Your task to perform on an android device: delete location history Image 0: 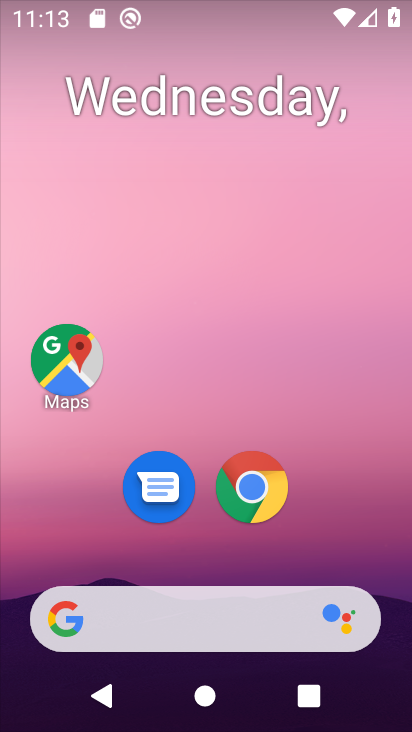
Step 0: drag from (329, 442) to (250, 32)
Your task to perform on an android device: delete location history Image 1: 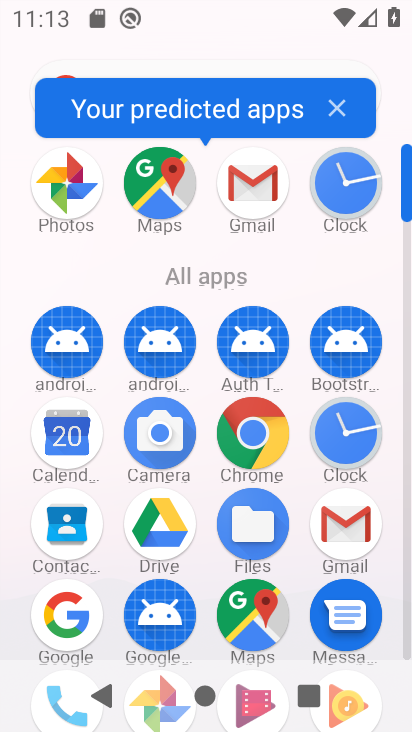
Step 1: drag from (22, 524) to (33, 278)
Your task to perform on an android device: delete location history Image 2: 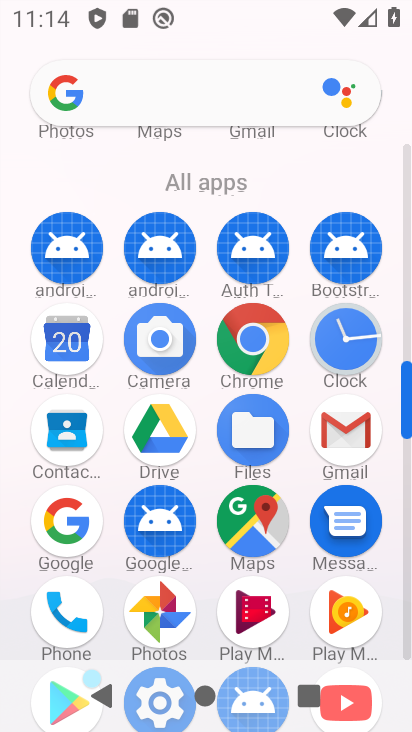
Step 2: drag from (14, 481) to (22, 219)
Your task to perform on an android device: delete location history Image 3: 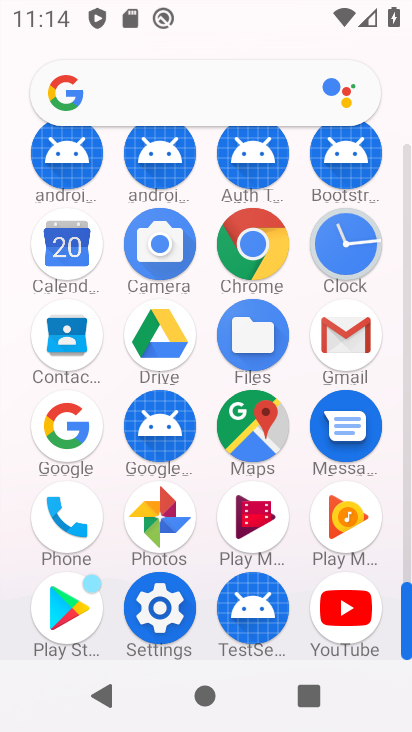
Step 3: click (160, 607)
Your task to perform on an android device: delete location history Image 4: 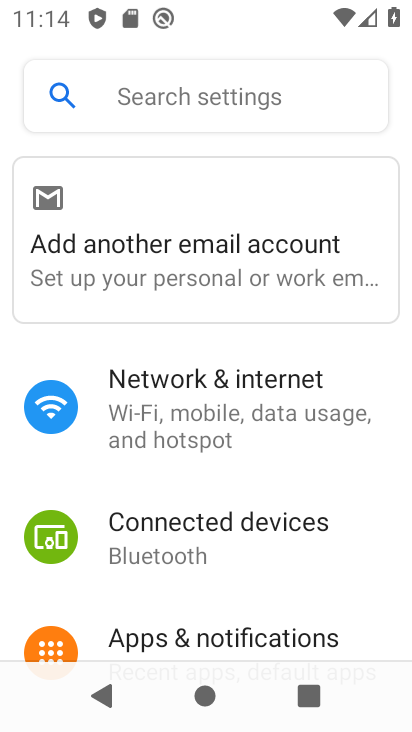
Step 4: drag from (283, 569) to (312, 170)
Your task to perform on an android device: delete location history Image 5: 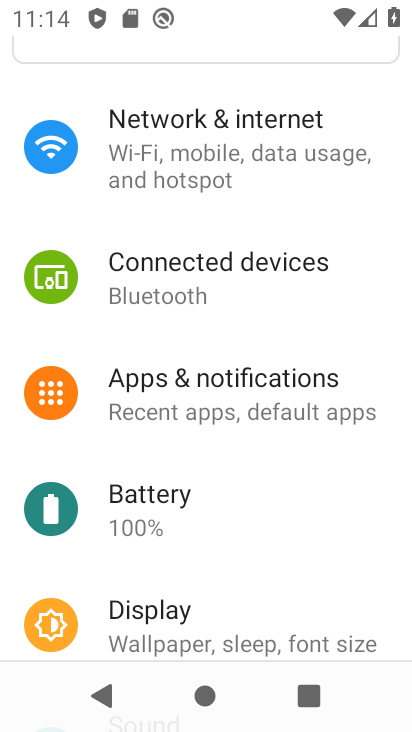
Step 5: drag from (236, 486) to (261, 151)
Your task to perform on an android device: delete location history Image 6: 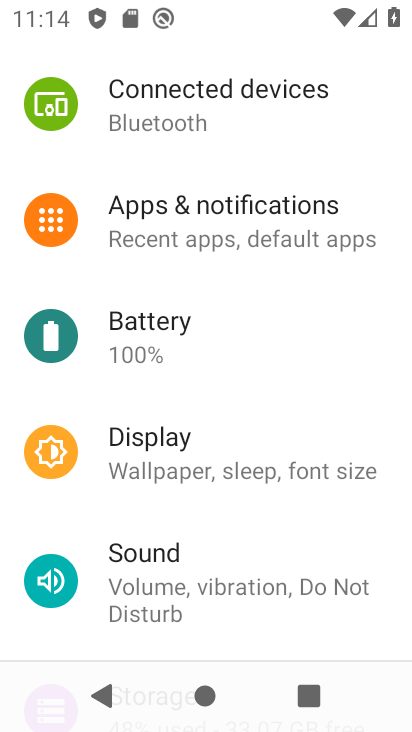
Step 6: drag from (215, 489) to (240, 167)
Your task to perform on an android device: delete location history Image 7: 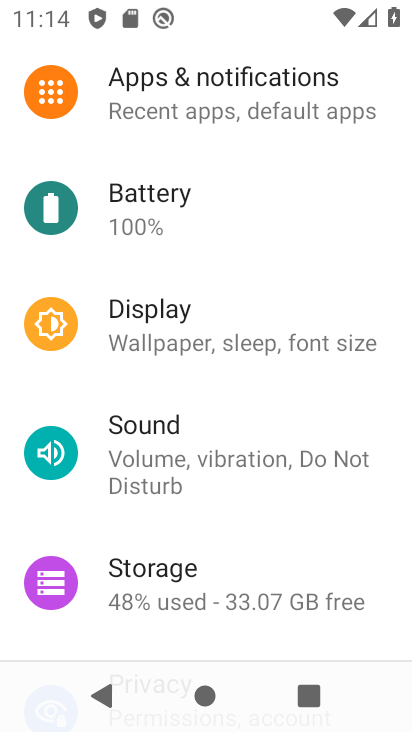
Step 7: drag from (140, 423) to (236, 132)
Your task to perform on an android device: delete location history Image 8: 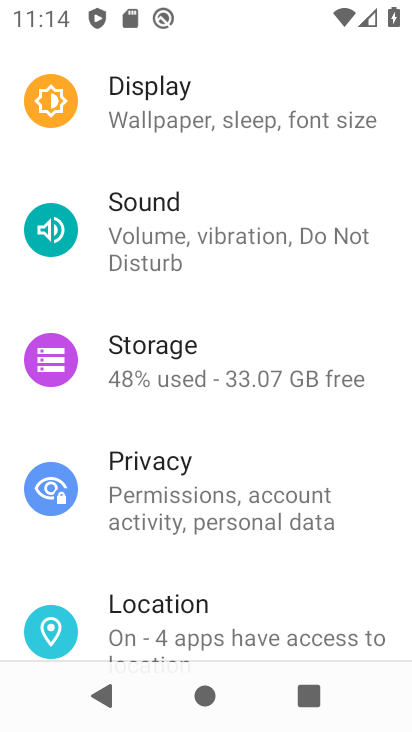
Step 8: click (192, 591)
Your task to perform on an android device: delete location history Image 9: 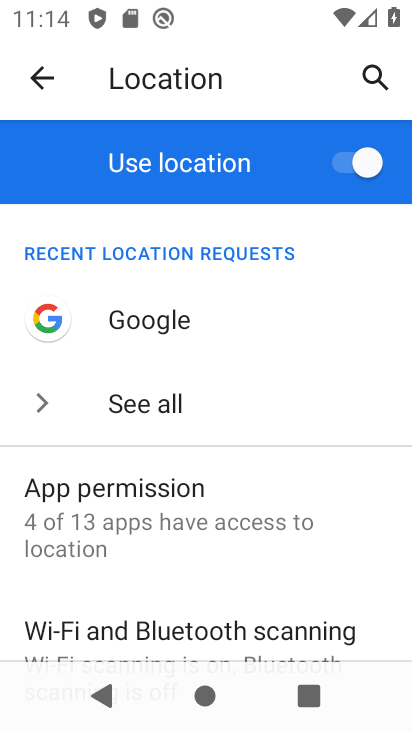
Step 9: drag from (266, 384) to (292, 140)
Your task to perform on an android device: delete location history Image 10: 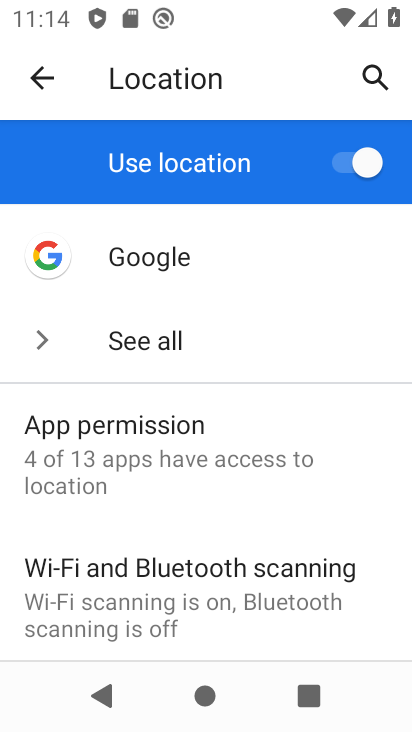
Step 10: drag from (189, 449) to (264, 192)
Your task to perform on an android device: delete location history Image 11: 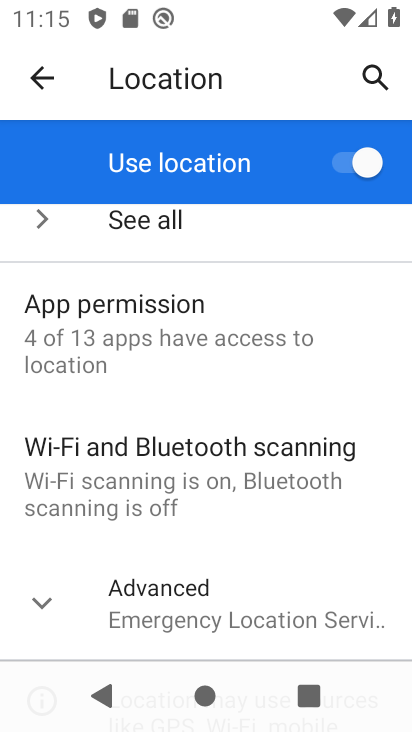
Step 11: click (60, 611)
Your task to perform on an android device: delete location history Image 12: 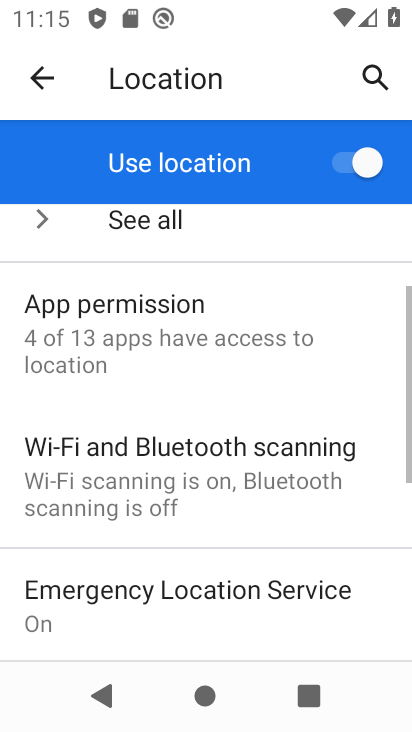
Step 12: drag from (258, 590) to (295, 241)
Your task to perform on an android device: delete location history Image 13: 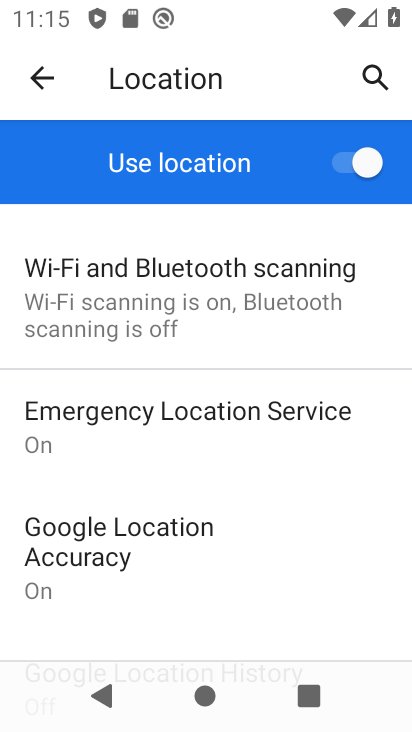
Step 13: drag from (206, 481) to (235, 179)
Your task to perform on an android device: delete location history Image 14: 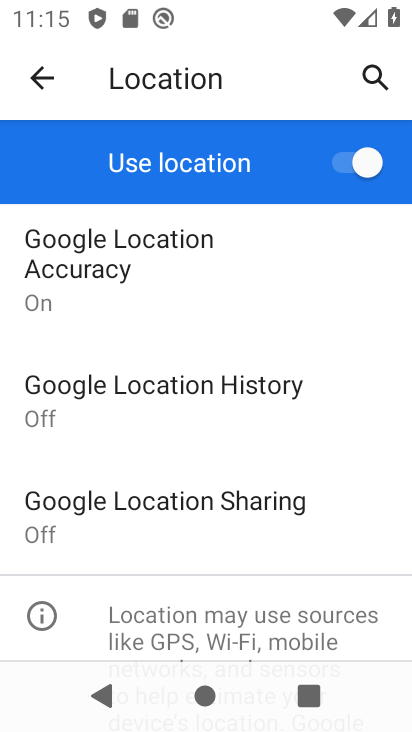
Step 14: click (122, 398)
Your task to perform on an android device: delete location history Image 15: 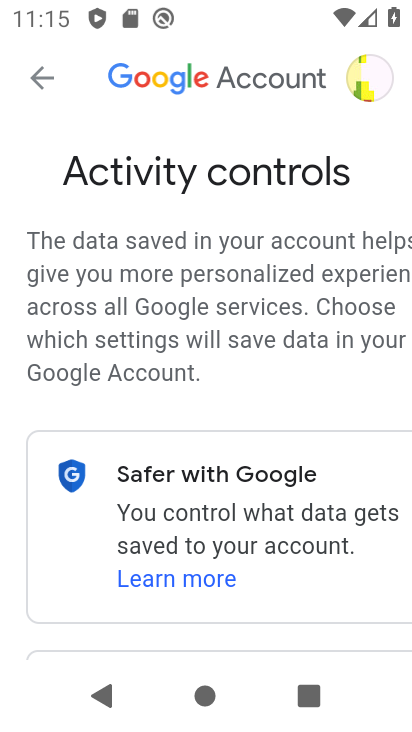
Step 15: drag from (260, 488) to (213, 144)
Your task to perform on an android device: delete location history Image 16: 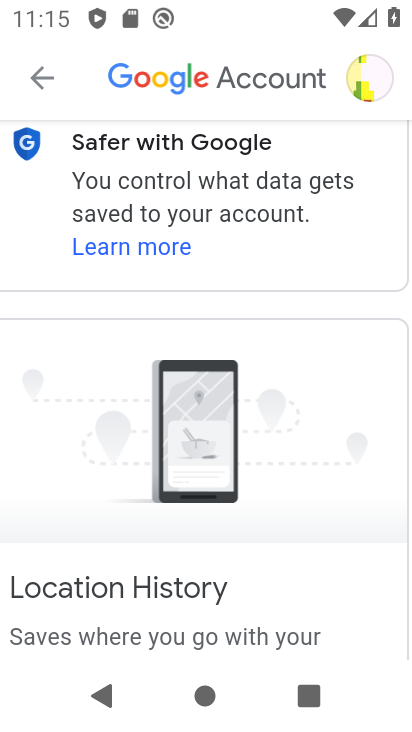
Step 16: drag from (213, 540) to (237, 140)
Your task to perform on an android device: delete location history Image 17: 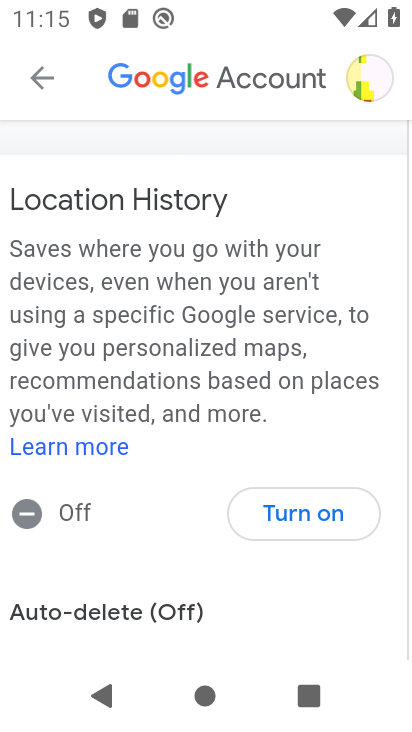
Step 17: drag from (200, 413) to (242, 184)
Your task to perform on an android device: delete location history Image 18: 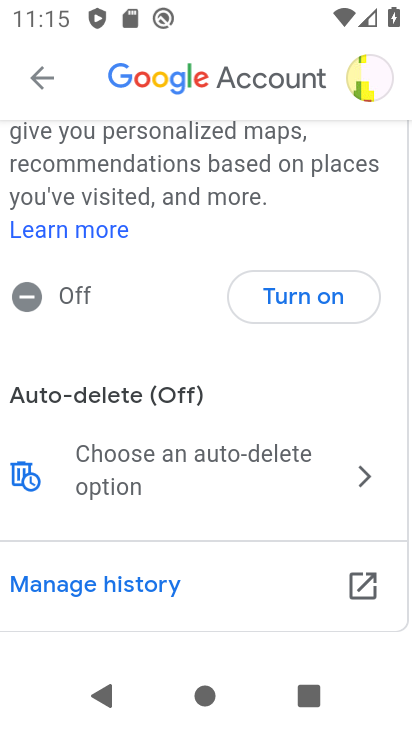
Step 18: click (15, 466)
Your task to perform on an android device: delete location history Image 19: 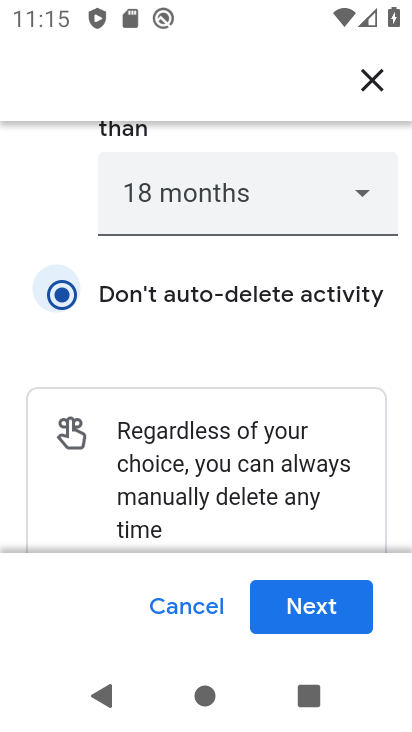
Step 19: click (308, 604)
Your task to perform on an android device: delete location history Image 20: 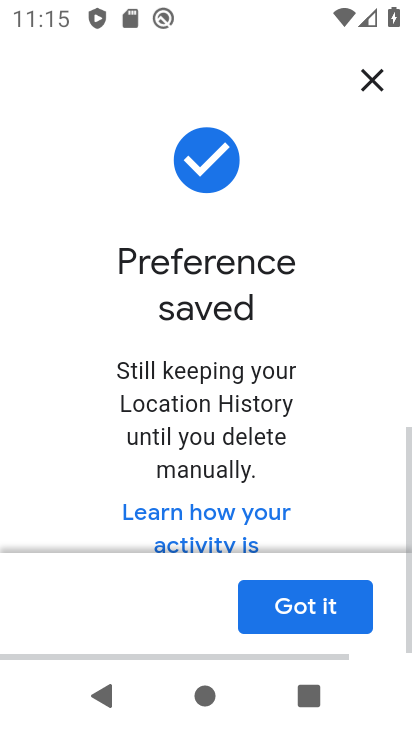
Step 20: click (326, 623)
Your task to perform on an android device: delete location history Image 21: 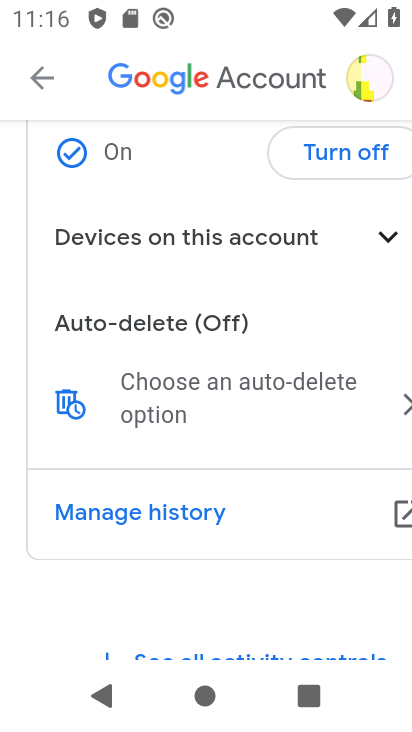
Step 21: task complete